Your task to perform on an android device: Open location settings Image 0: 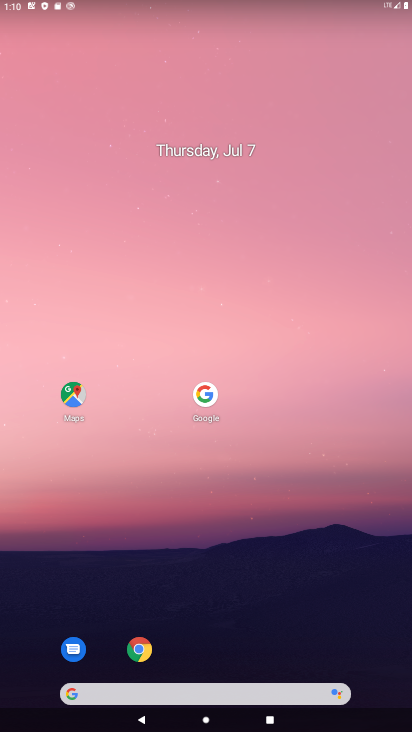
Step 0: press home button
Your task to perform on an android device: Open location settings Image 1: 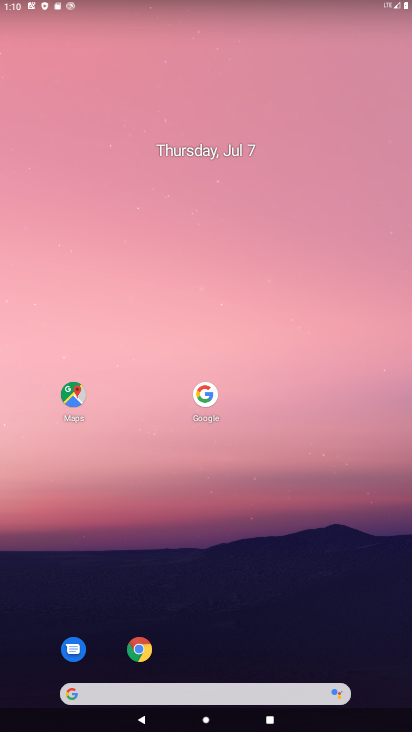
Step 1: drag from (295, 608) to (293, 172)
Your task to perform on an android device: Open location settings Image 2: 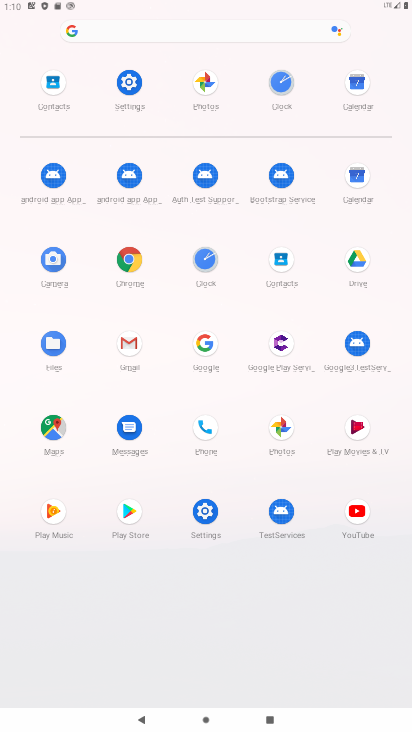
Step 2: click (136, 84)
Your task to perform on an android device: Open location settings Image 3: 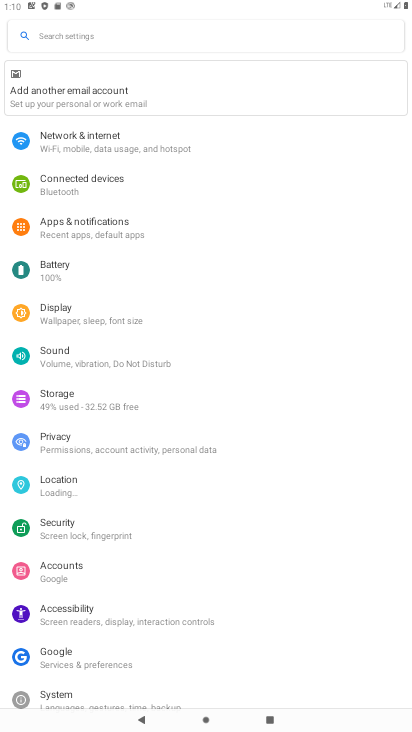
Step 3: click (40, 489)
Your task to perform on an android device: Open location settings Image 4: 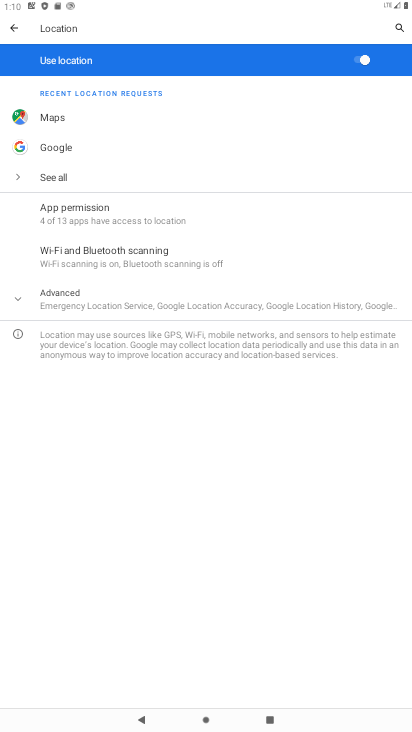
Step 4: task complete